Your task to perform on an android device: open app "Google Duo" (install if not already installed) Image 0: 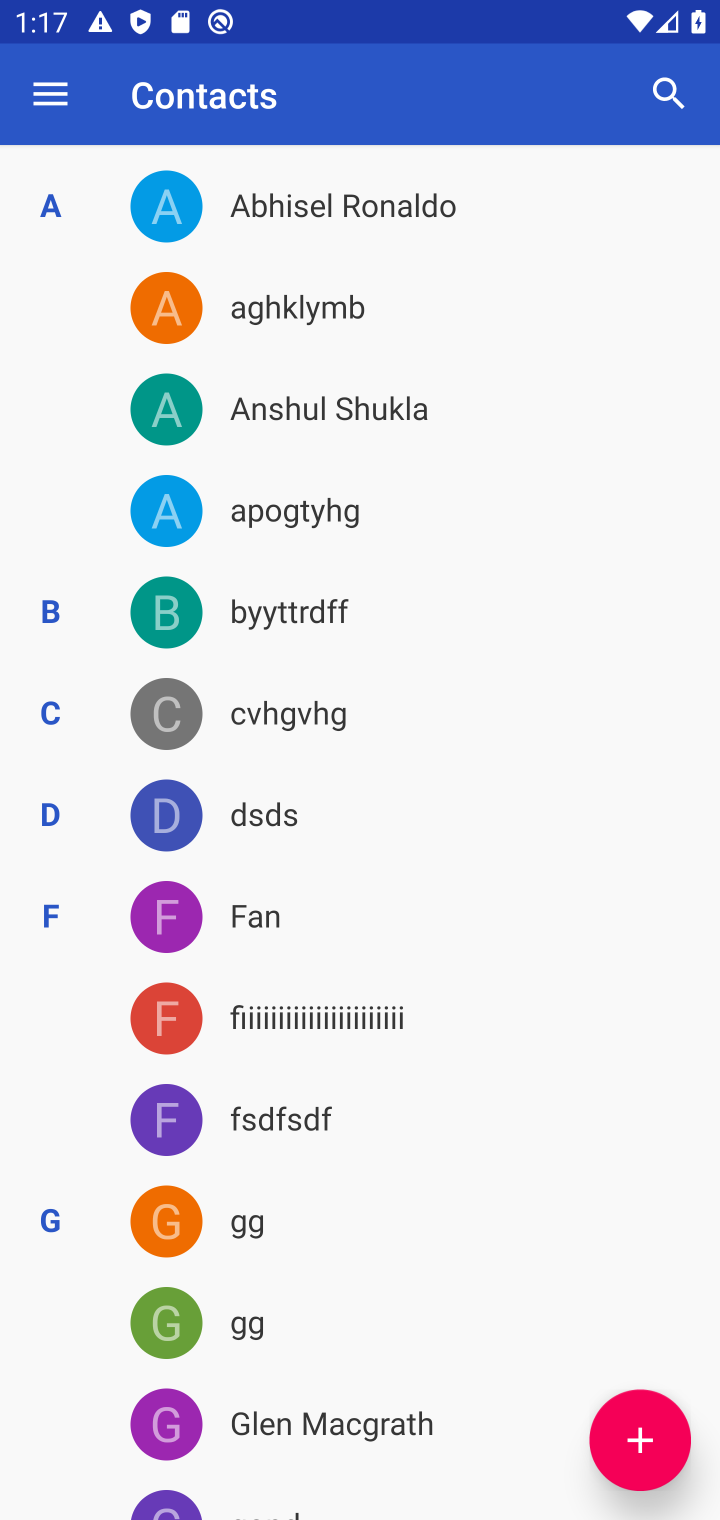
Step 0: press home button
Your task to perform on an android device: open app "Google Duo" (install if not already installed) Image 1: 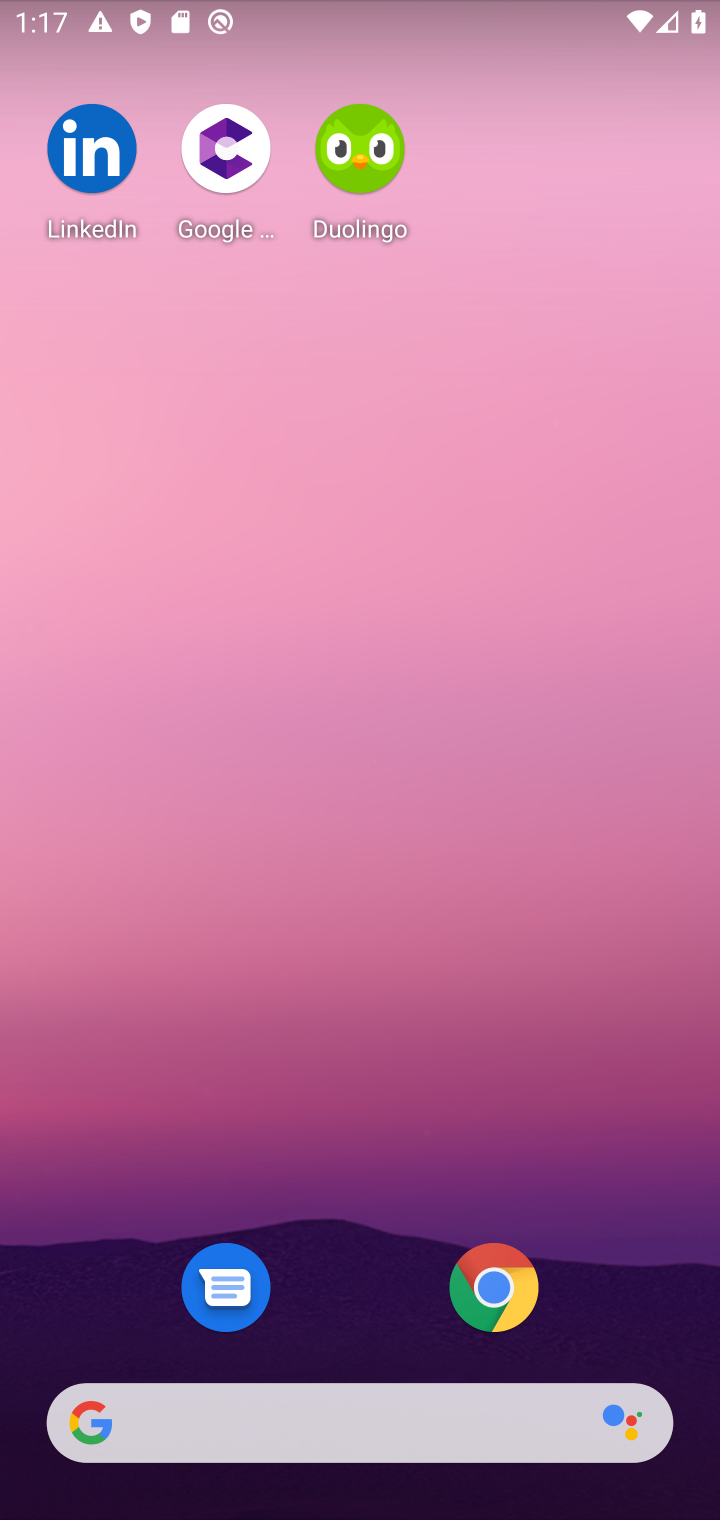
Step 1: drag from (320, 1285) to (294, 71)
Your task to perform on an android device: open app "Google Duo" (install if not already installed) Image 2: 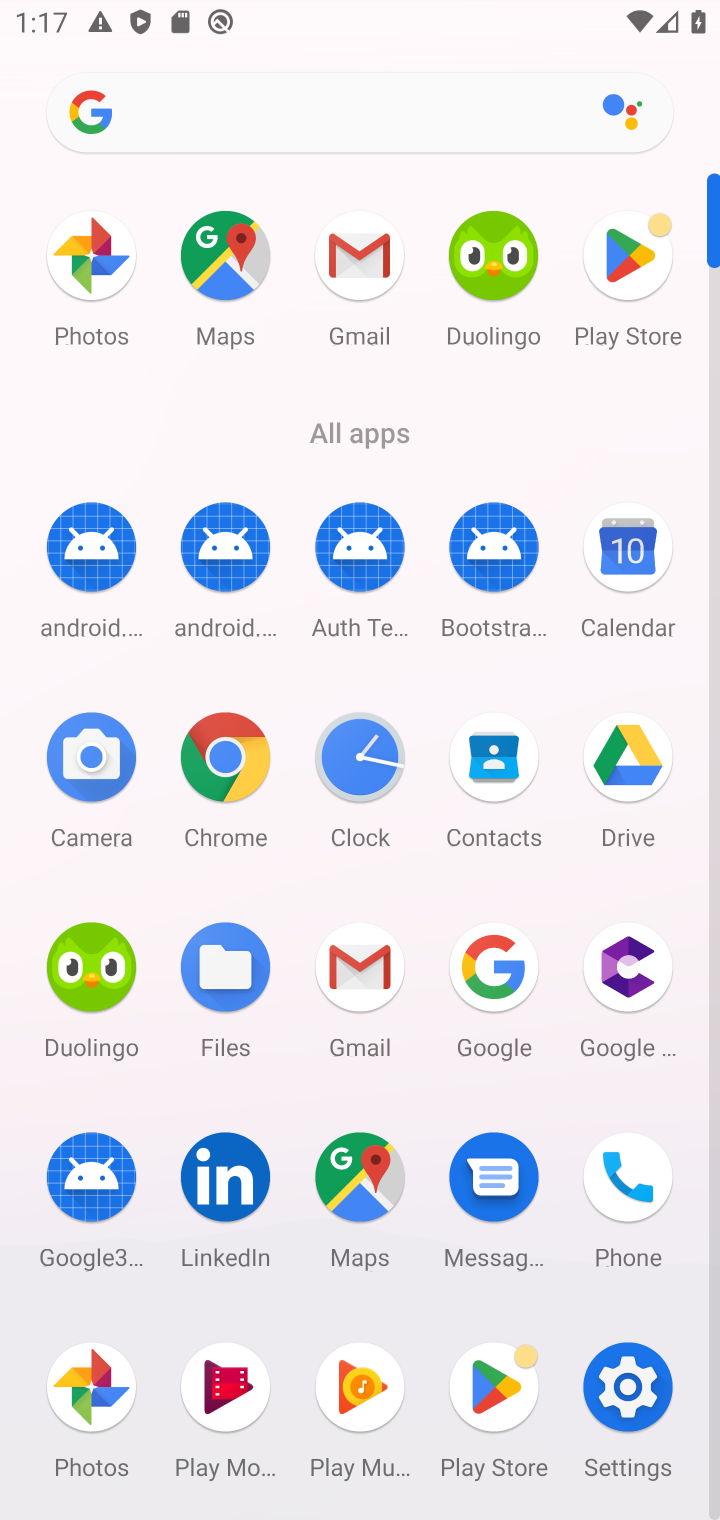
Step 2: click (602, 275)
Your task to perform on an android device: open app "Google Duo" (install if not already installed) Image 3: 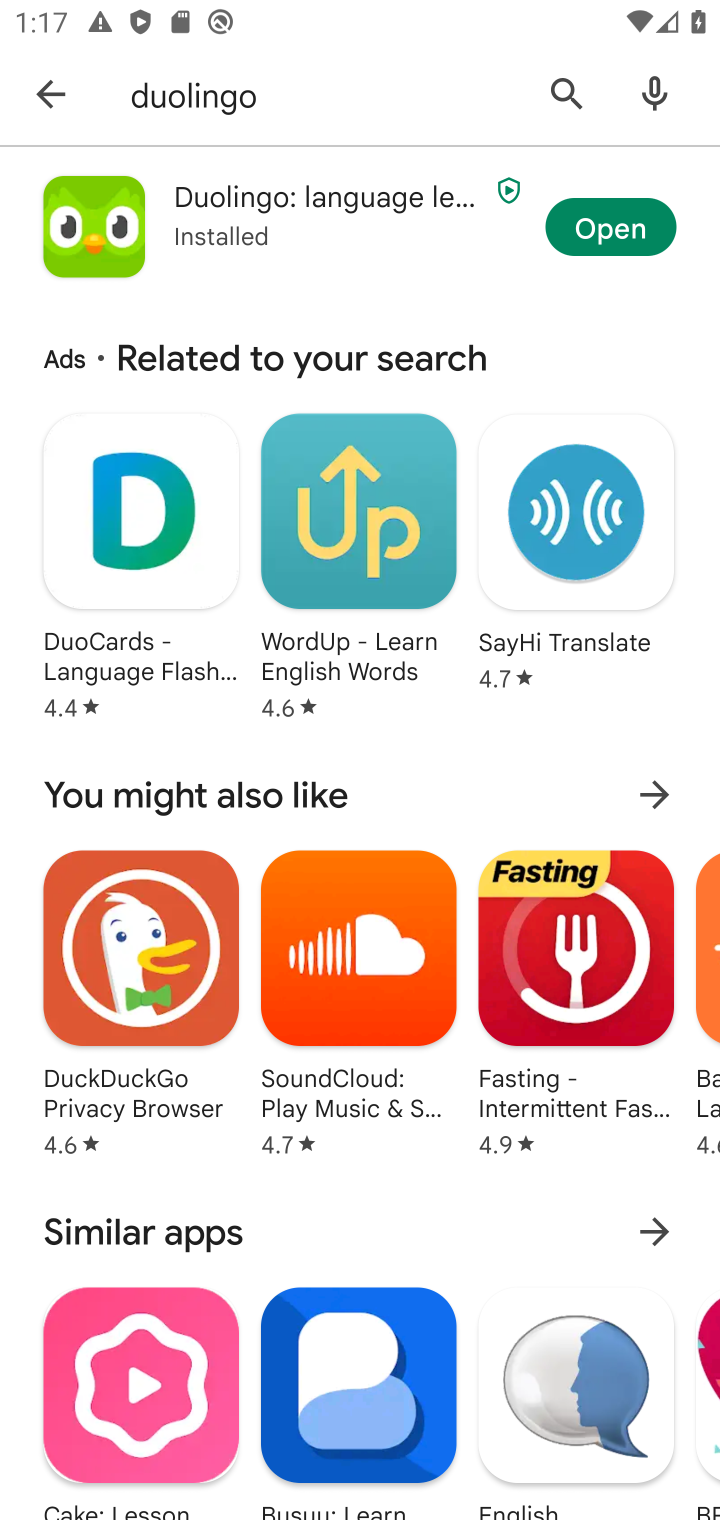
Step 3: click (196, 91)
Your task to perform on an android device: open app "Google Duo" (install if not already installed) Image 4: 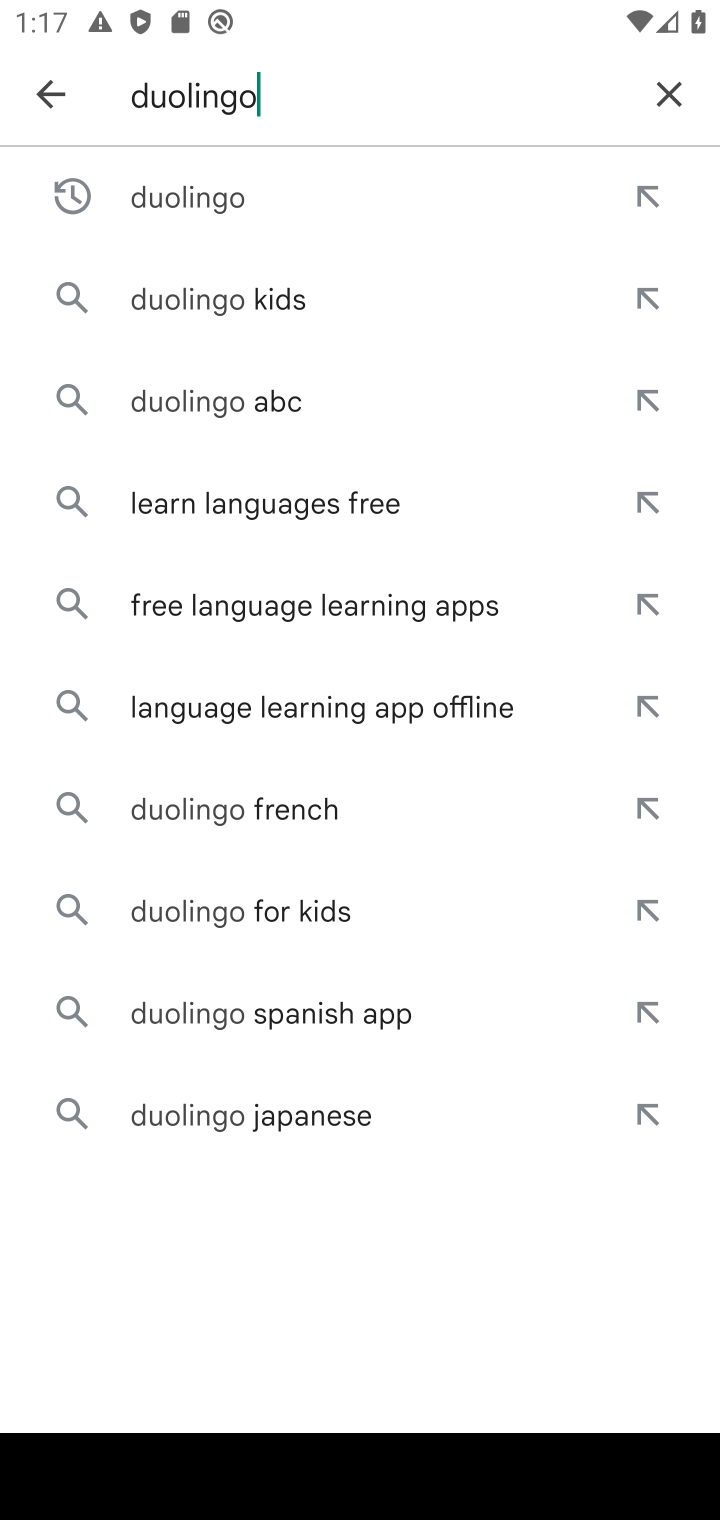
Step 4: click (667, 90)
Your task to perform on an android device: open app "Google Duo" (install if not already installed) Image 5: 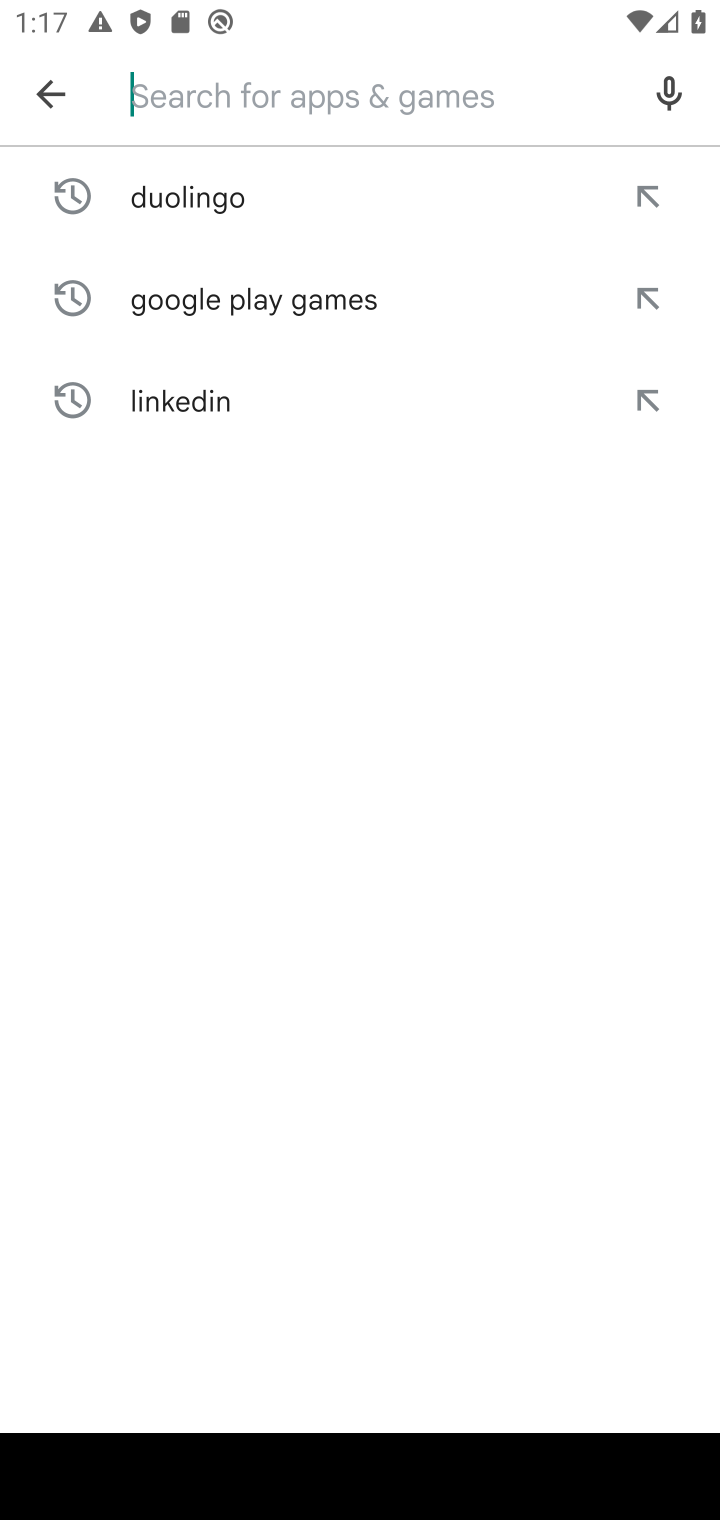
Step 5: type "google duo"
Your task to perform on an android device: open app "Google Duo" (install if not already installed) Image 6: 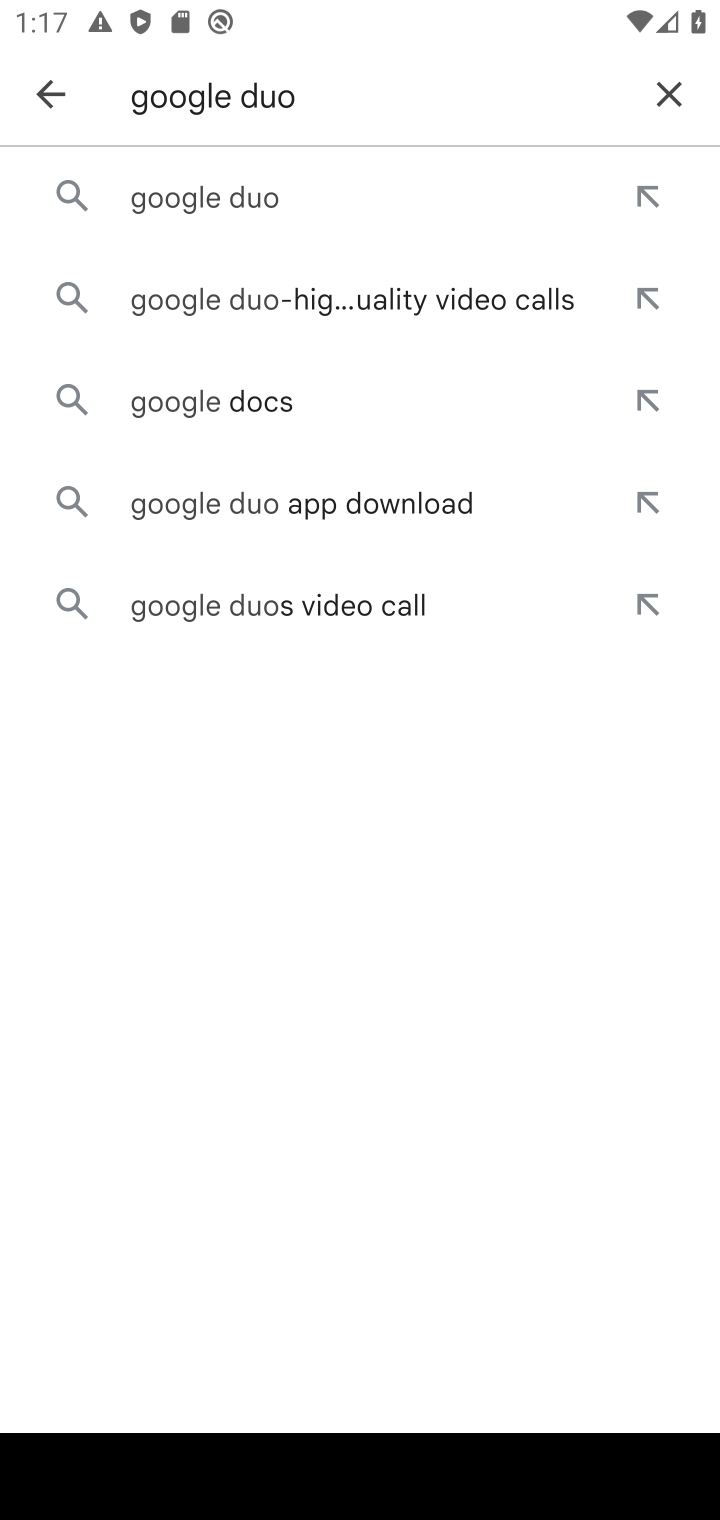
Step 6: click (290, 221)
Your task to perform on an android device: open app "Google Duo" (install if not already installed) Image 7: 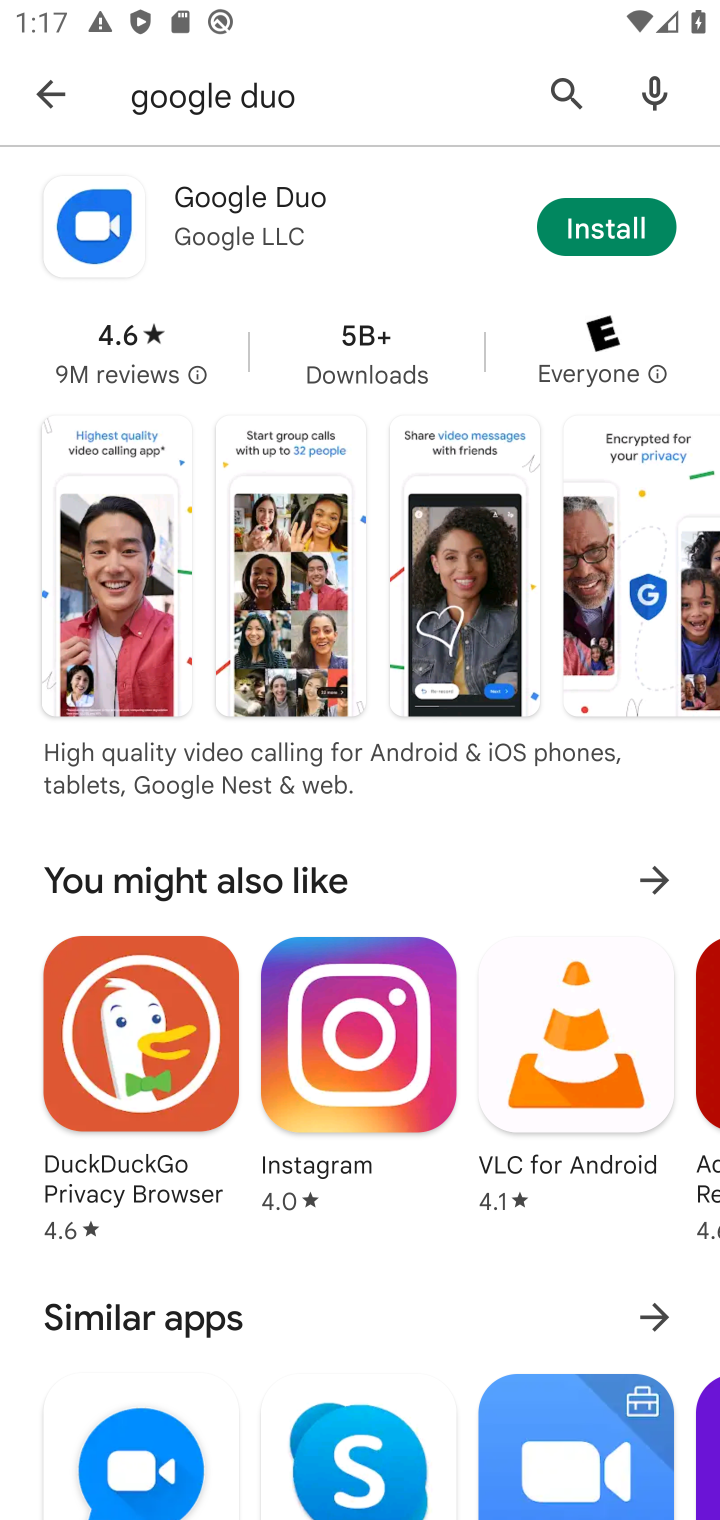
Step 7: click (597, 213)
Your task to perform on an android device: open app "Google Duo" (install if not already installed) Image 8: 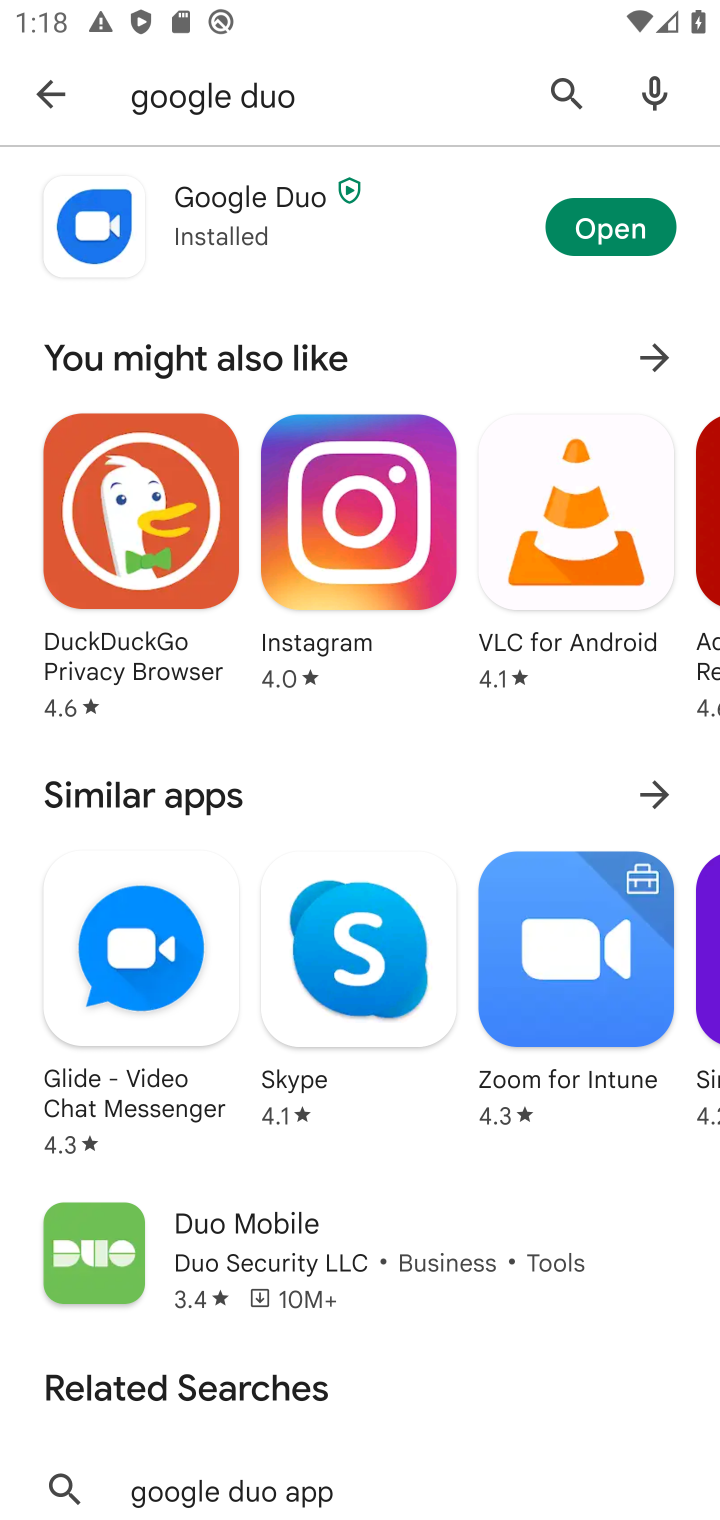
Step 8: click (618, 235)
Your task to perform on an android device: open app "Google Duo" (install if not already installed) Image 9: 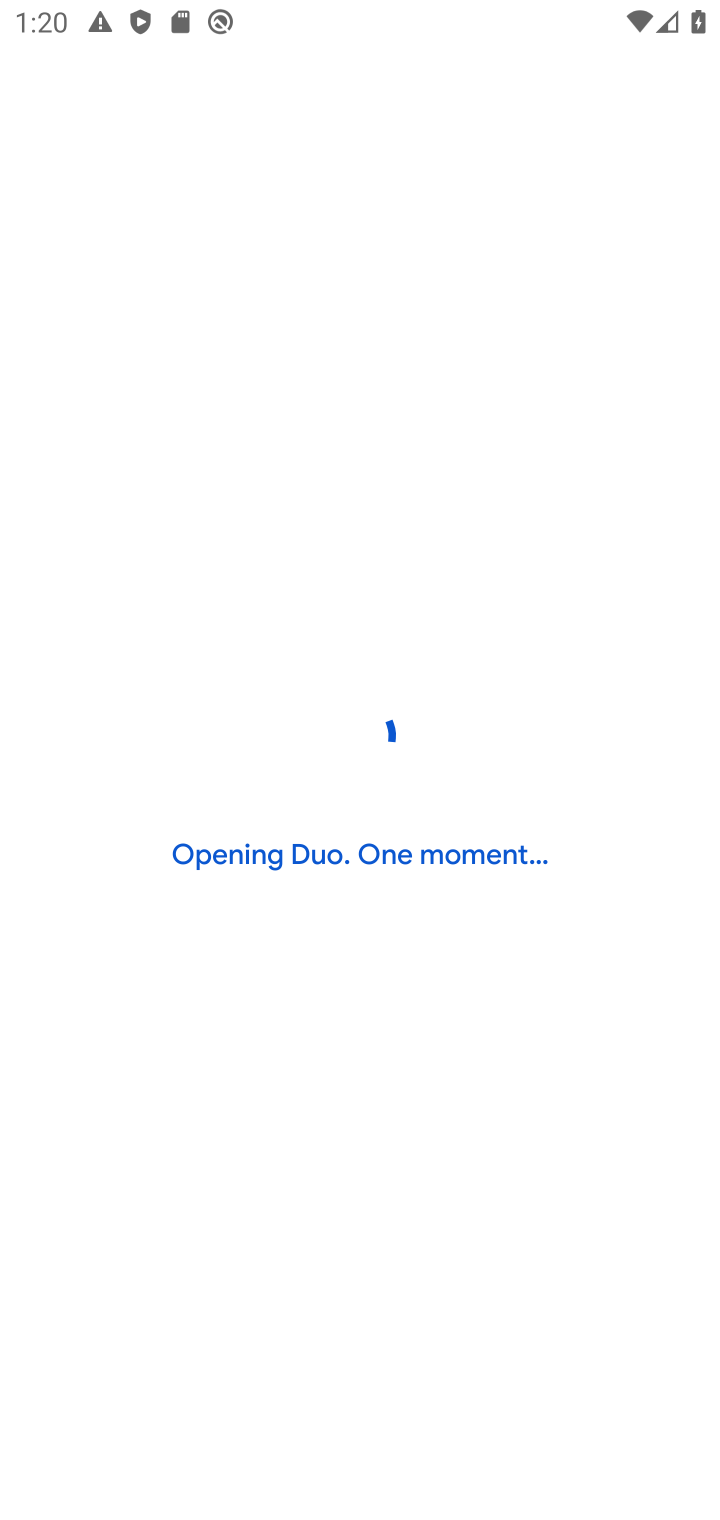
Step 9: task complete